Your task to perform on an android device: Open settings Image 0: 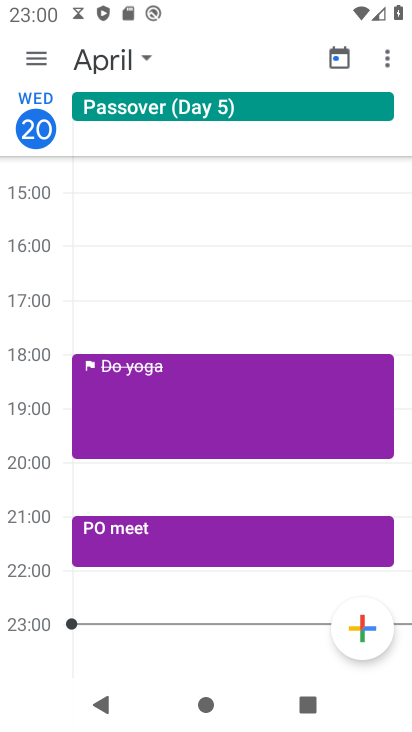
Step 0: press home button
Your task to perform on an android device: Open settings Image 1: 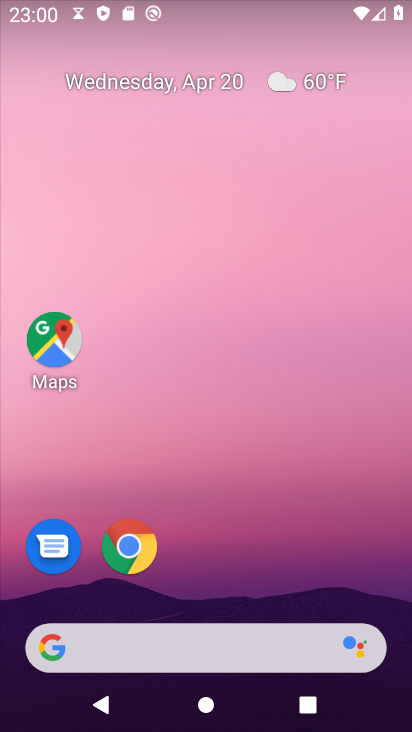
Step 1: drag from (251, 448) to (254, 0)
Your task to perform on an android device: Open settings Image 2: 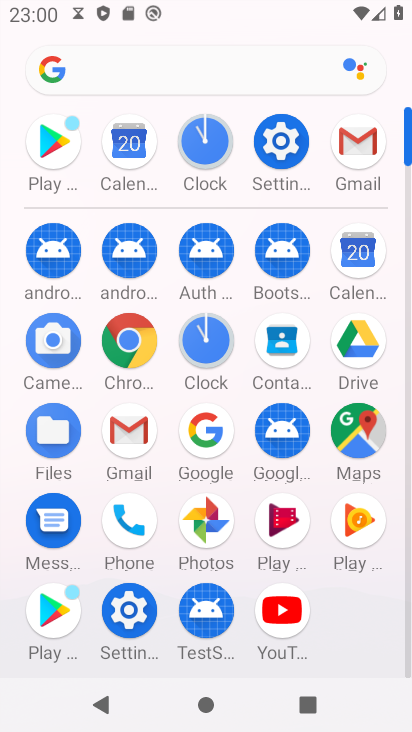
Step 2: click (279, 138)
Your task to perform on an android device: Open settings Image 3: 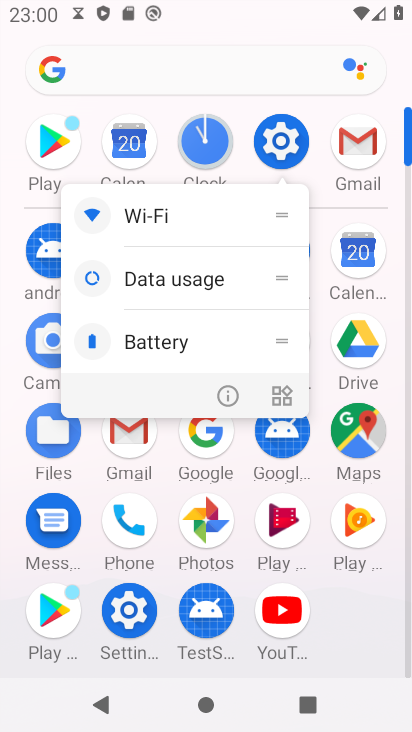
Step 3: click (280, 153)
Your task to perform on an android device: Open settings Image 4: 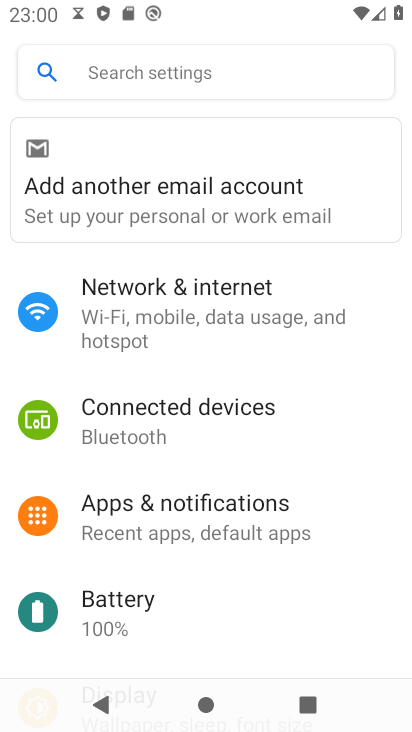
Step 4: task complete